Your task to perform on an android device: Open Google Chrome Image 0: 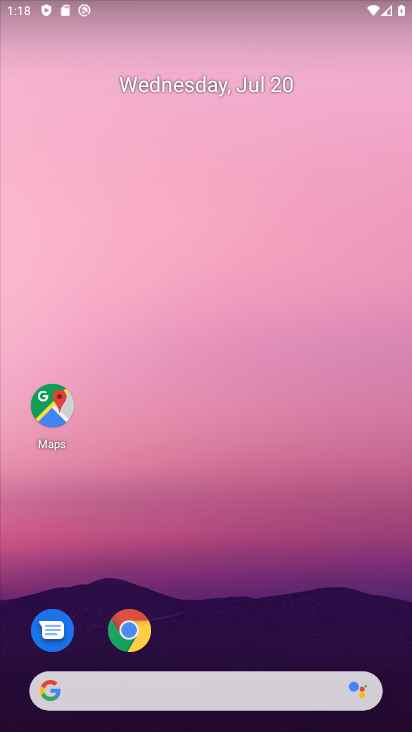
Step 0: drag from (263, 539) to (292, 5)
Your task to perform on an android device: Open Google Chrome Image 1: 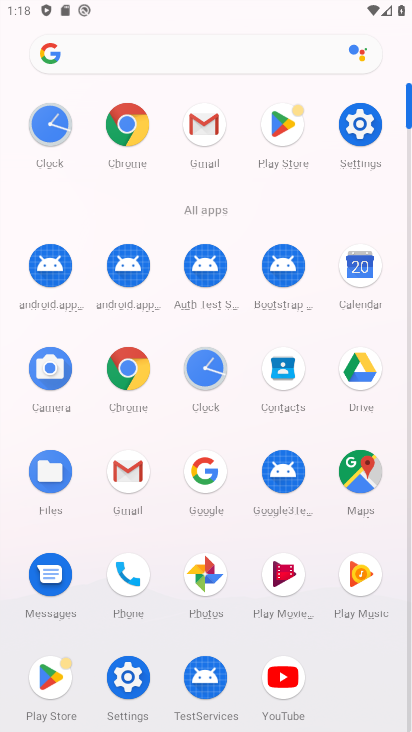
Step 1: click (32, 114)
Your task to perform on an android device: Open Google Chrome Image 2: 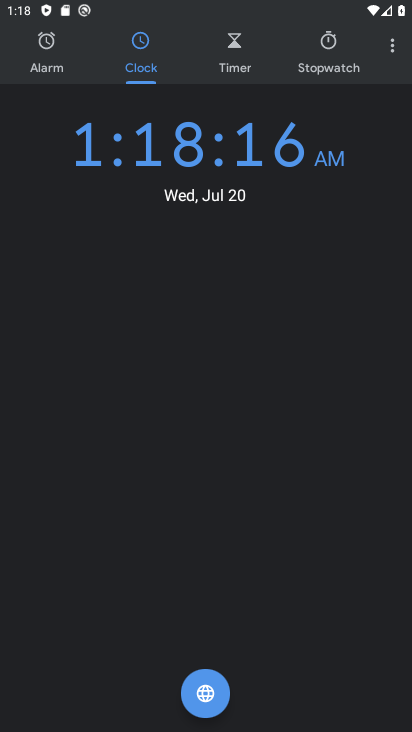
Step 2: press home button
Your task to perform on an android device: Open Google Chrome Image 3: 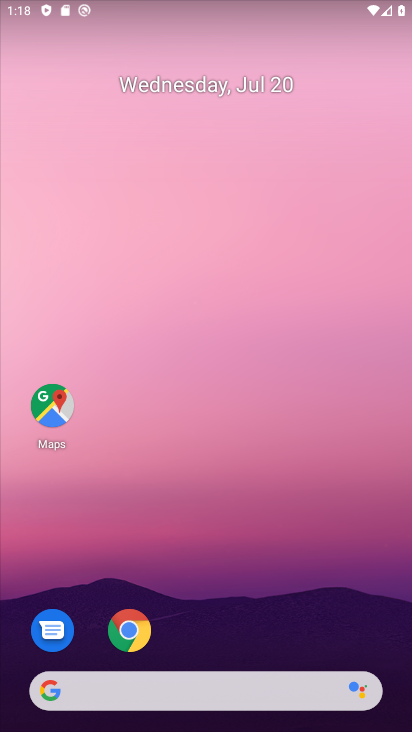
Step 3: click (128, 631)
Your task to perform on an android device: Open Google Chrome Image 4: 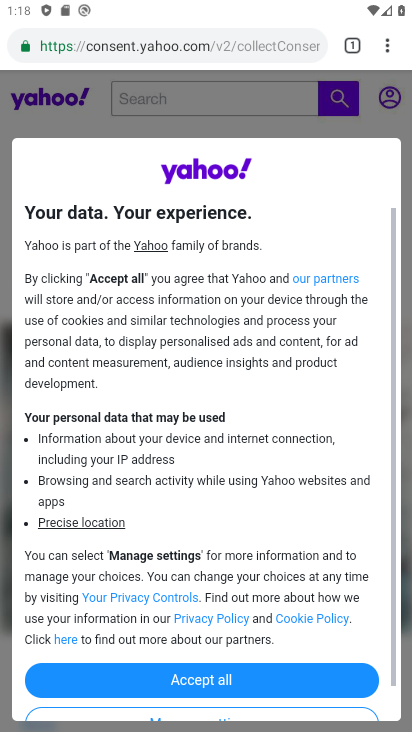
Step 4: task complete